Your task to perform on an android device: Open calendar and show me the fourth week of next month Image 0: 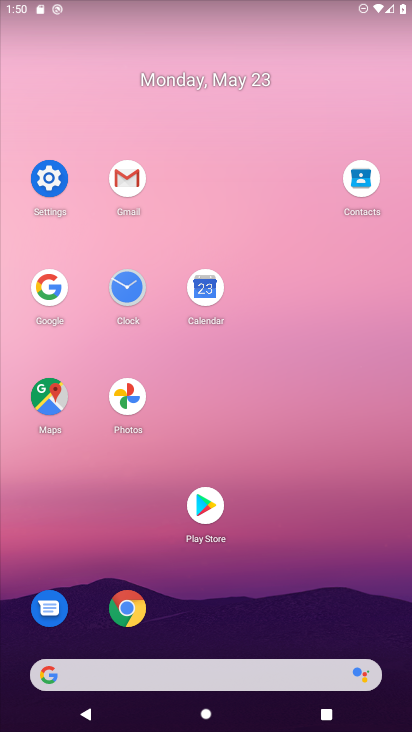
Step 0: click (215, 271)
Your task to perform on an android device: Open calendar and show me the fourth week of next month Image 1: 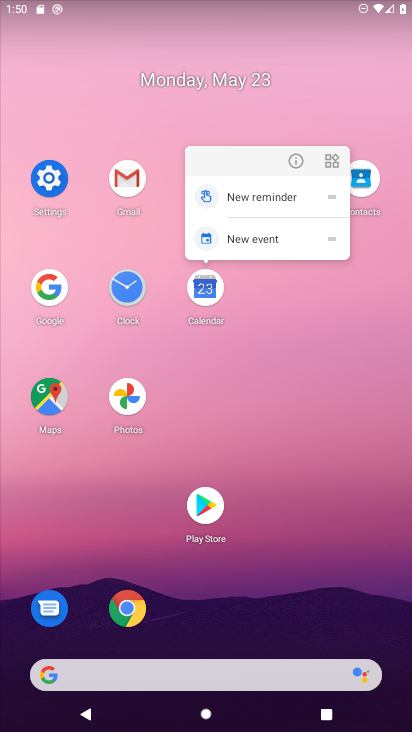
Step 1: click (223, 301)
Your task to perform on an android device: Open calendar and show me the fourth week of next month Image 2: 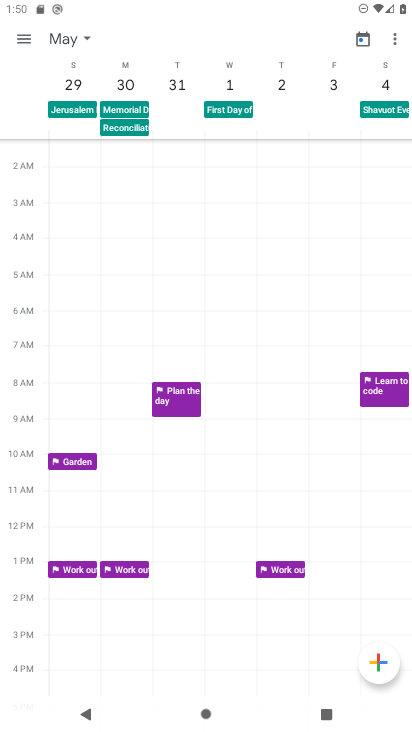
Step 2: click (80, 31)
Your task to perform on an android device: Open calendar and show me the fourth week of next month Image 3: 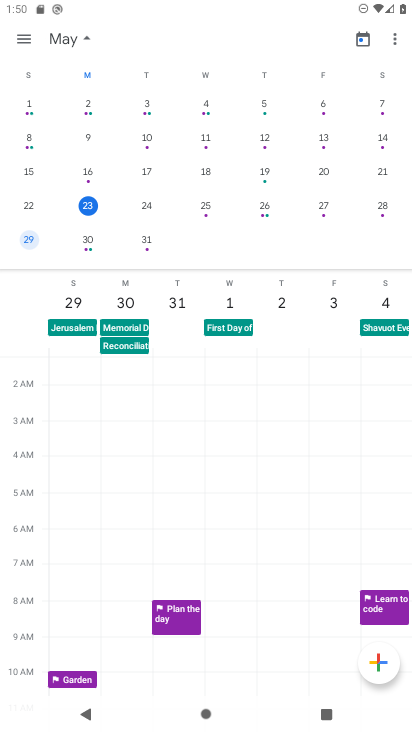
Step 3: drag from (393, 178) to (15, 154)
Your task to perform on an android device: Open calendar and show me the fourth week of next month Image 4: 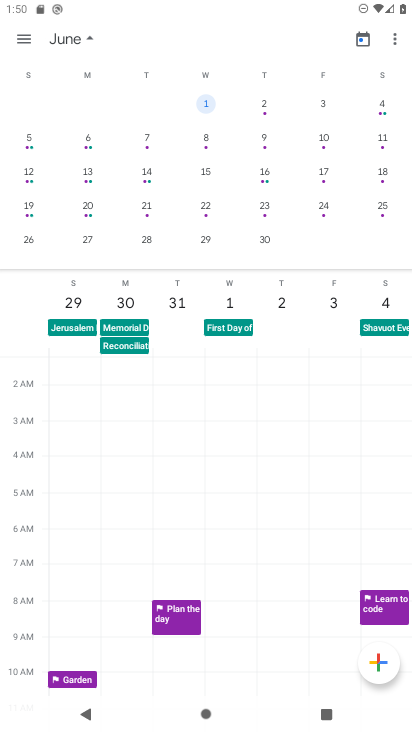
Step 4: click (29, 40)
Your task to perform on an android device: Open calendar and show me the fourth week of next month Image 5: 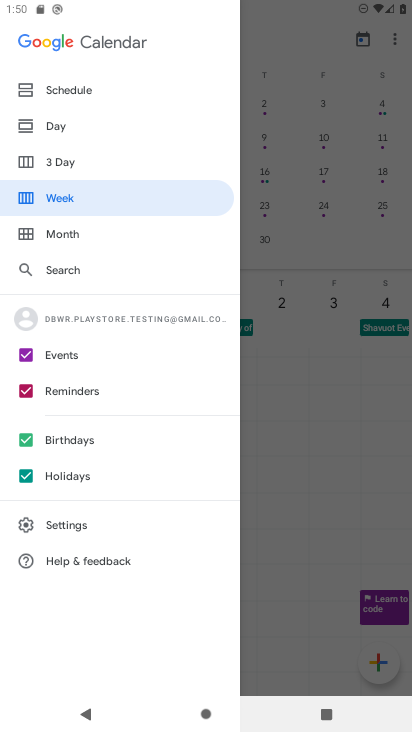
Step 5: click (112, 207)
Your task to perform on an android device: Open calendar and show me the fourth week of next month Image 6: 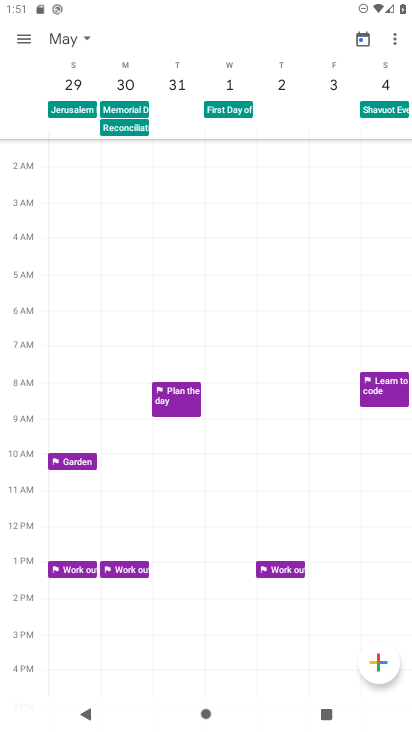
Step 6: task complete